Your task to perform on an android device: Do I have any events today? Image 0: 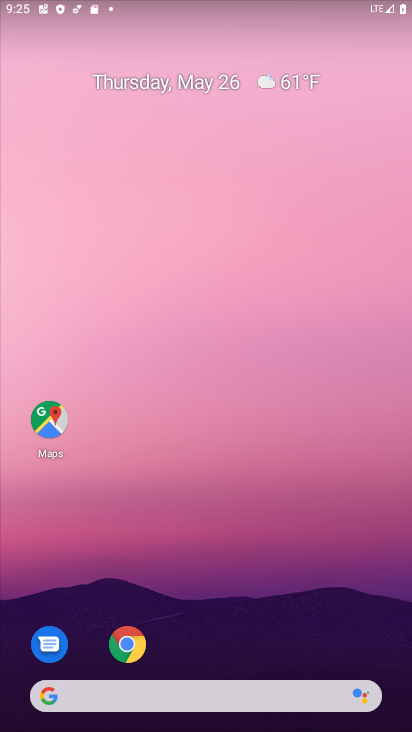
Step 0: click (211, 141)
Your task to perform on an android device: Do I have any events today? Image 1: 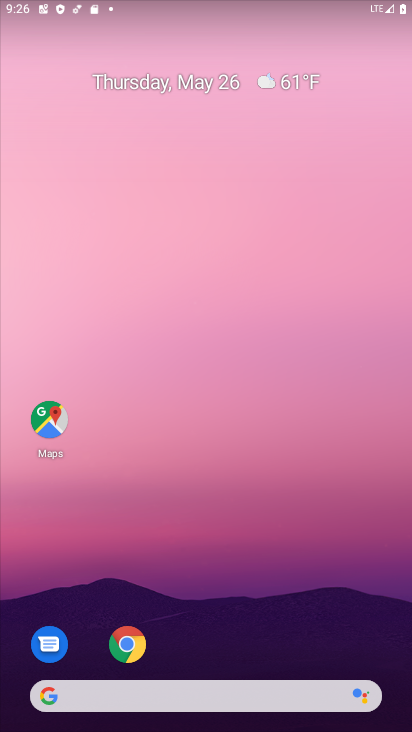
Step 1: drag from (252, 616) to (134, 17)
Your task to perform on an android device: Do I have any events today? Image 2: 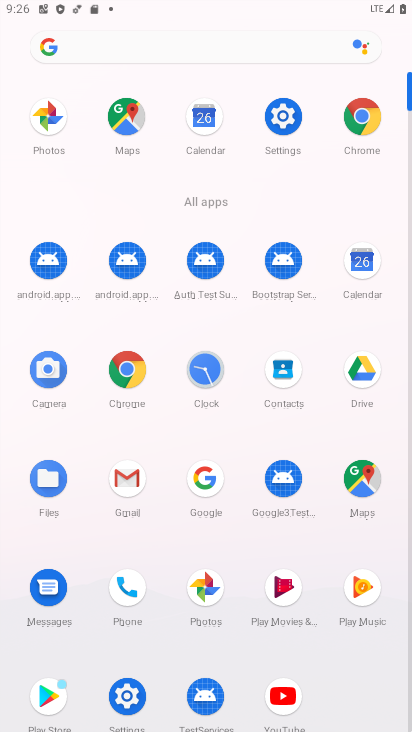
Step 2: drag from (335, 260) to (378, 291)
Your task to perform on an android device: Do I have any events today? Image 3: 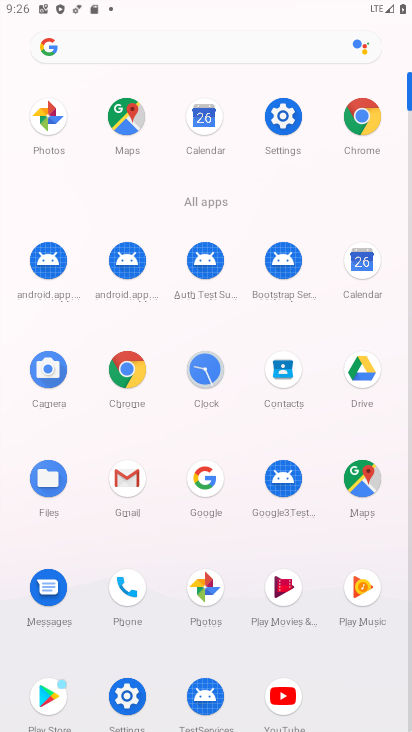
Step 3: click (355, 272)
Your task to perform on an android device: Do I have any events today? Image 4: 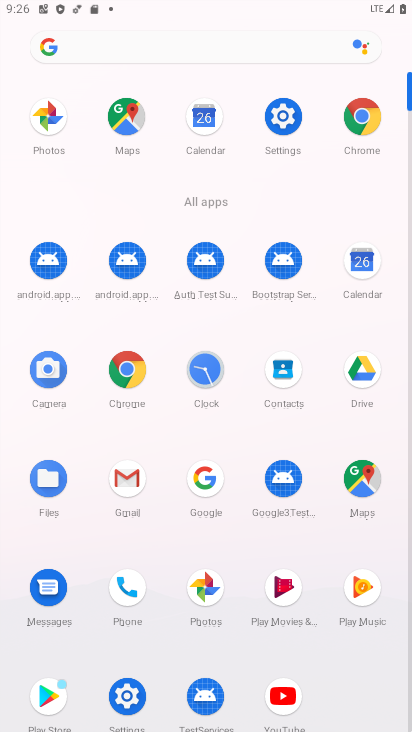
Step 4: click (355, 272)
Your task to perform on an android device: Do I have any events today? Image 5: 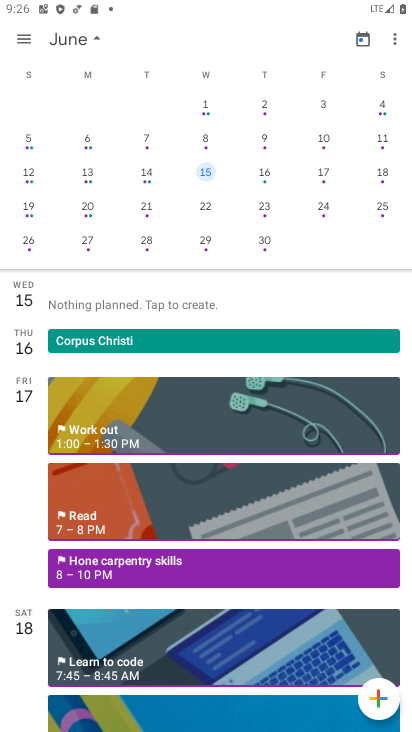
Step 5: drag from (103, 214) to (339, 263)
Your task to perform on an android device: Do I have any events today? Image 6: 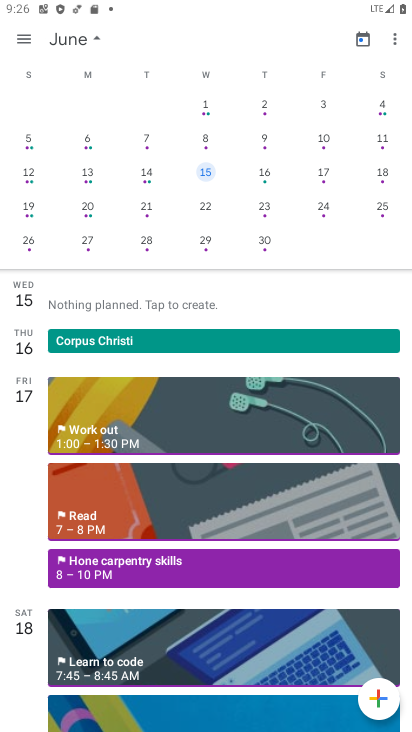
Step 6: drag from (87, 174) to (358, 204)
Your task to perform on an android device: Do I have any events today? Image 7: 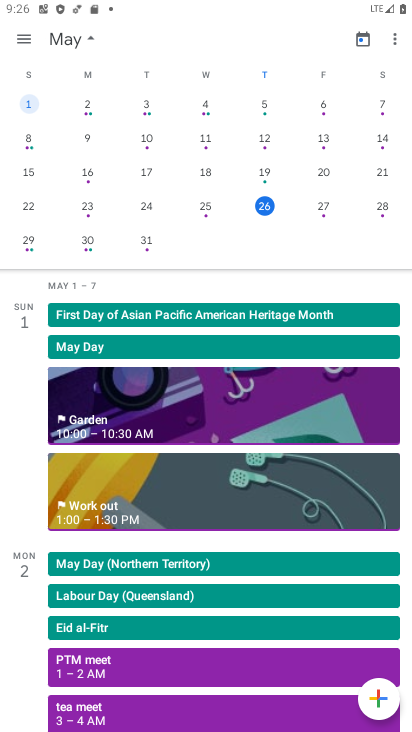
Step 7: drag from (79, 182) to (408, 182)
Your task to perform on an android device: Do I have any events today? Image 8: 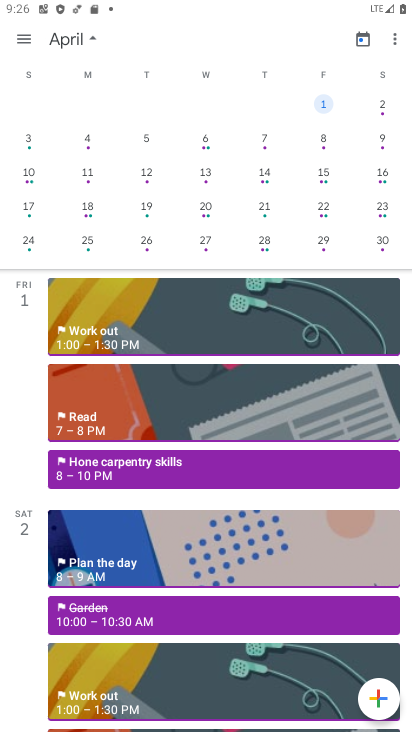
Step 8: drag from (346, 163) to (1, 210)
Your task to perform on an android device: Do I have any events today? Image 9: 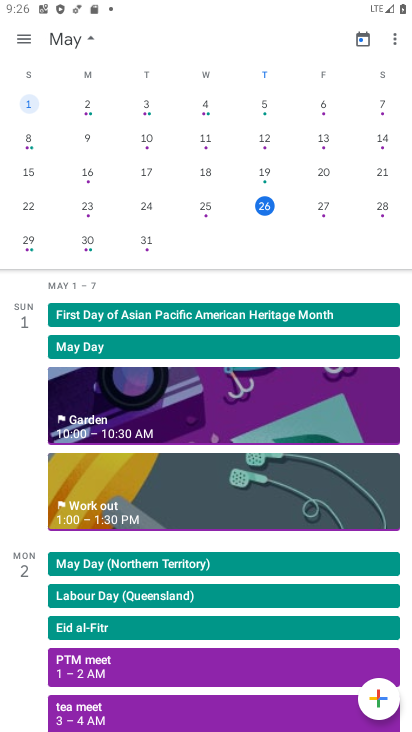
Step 9: drag from (281, 163) to (4, 205)
Your task to perform on an android device: Do I have any events today? Image 10: 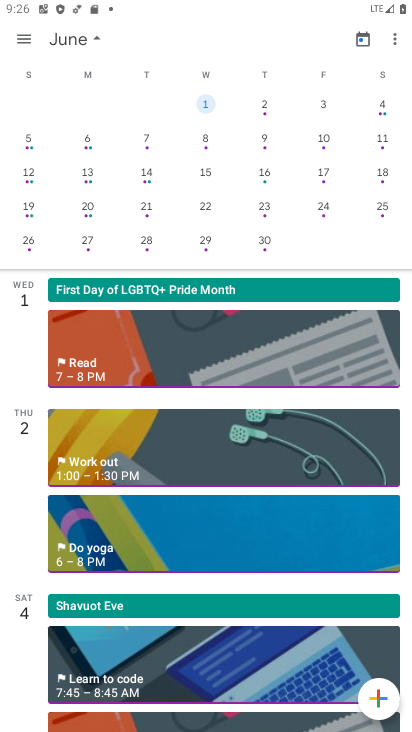
Step 10: drag from (114, 183) to (357, 252)
Your task to perform on an android device: Do I have any events today? Image 11: 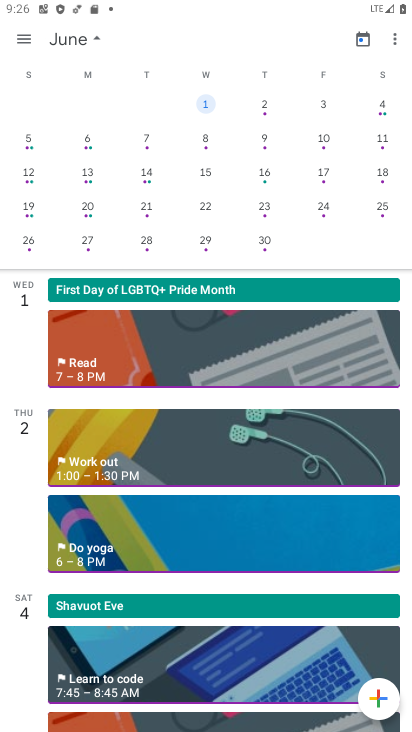
Step 11: drag from (76, 141) to (393, 230)
Your task to perform on an android device: Do I have any events today? Image 12: 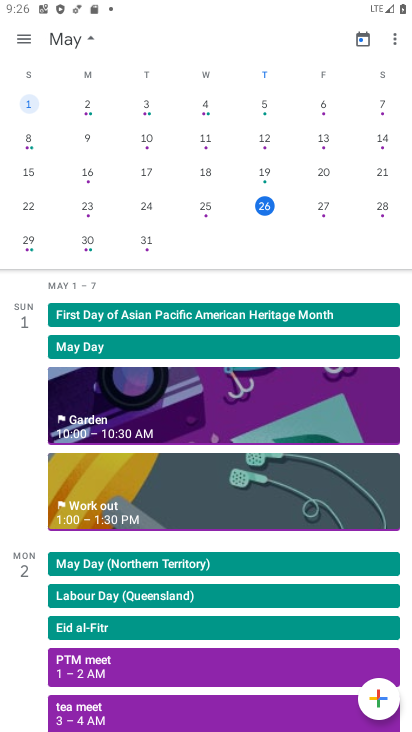
Step 12: click (320, 203)
Your task to perform on an android device: Do I have any events today? Image 13: 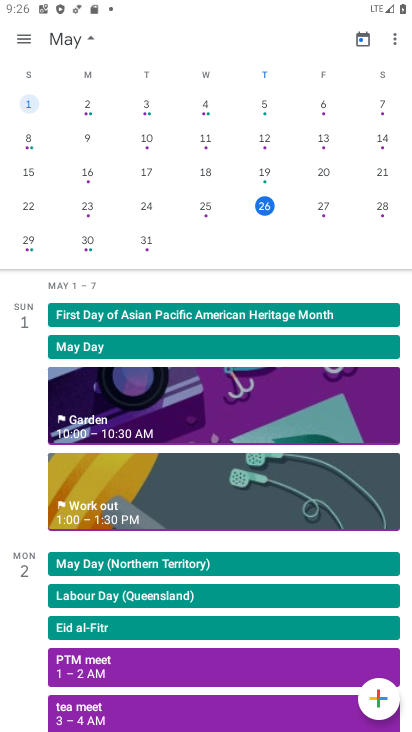
Step 13: click (323, 204)
Your task to perform on an android device: Do I have any events today? Image 14: 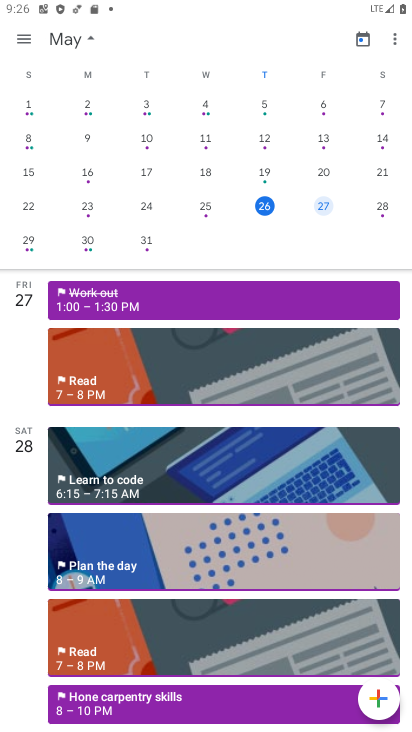
Step 14: click (326, 196)
Your task to perform on an android device: Do I have any events today? Image 15: 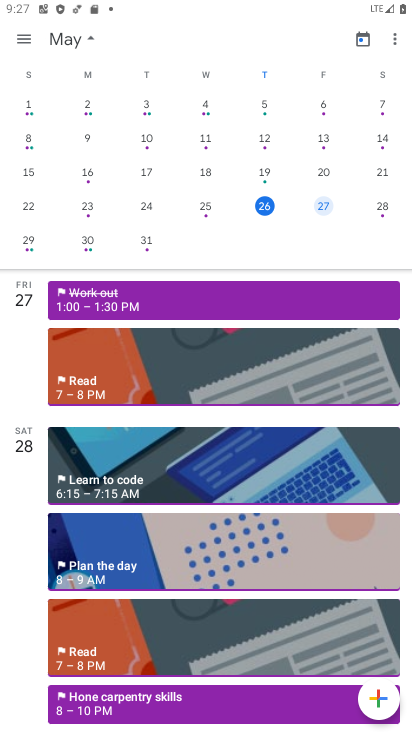
Step 15: task complete